Your task to perform on an android device: turn off location Image 0: 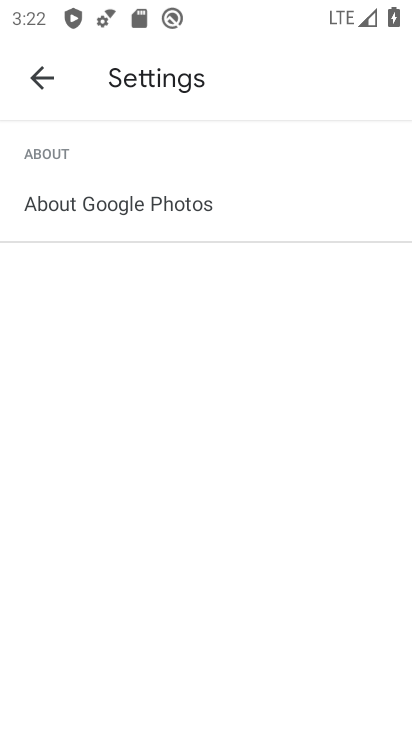
Step 0: press home button
Your task to perform on an android device: turn off location Image 1: 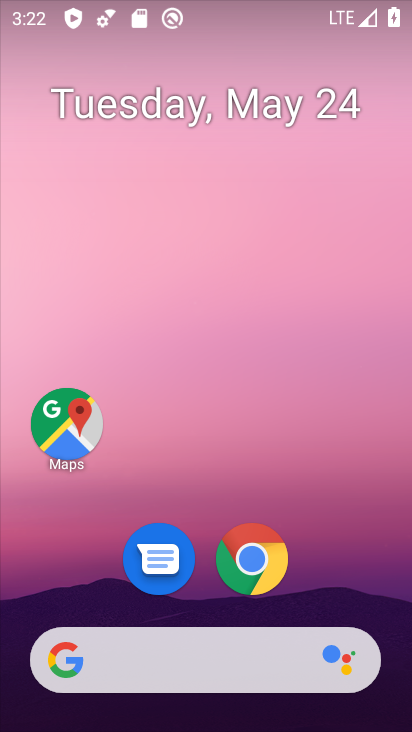
Step 1: drag from (340, 571) to (310, 139)
Your task to perform on an android device: turn off location Image 2: 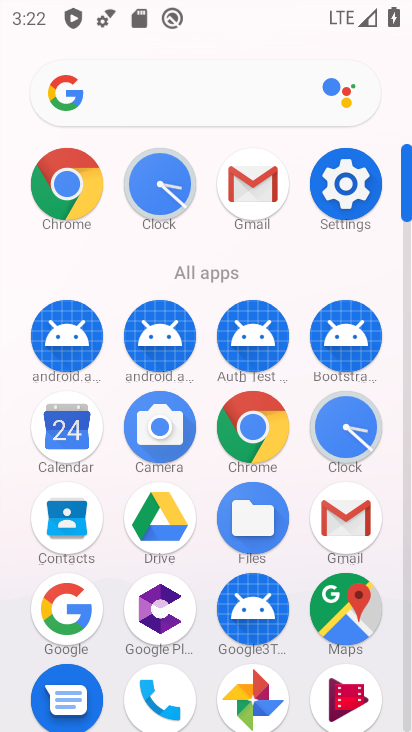
Step 2: click (348, 180)
Your task to perform on an android device: turn off location Image 3: 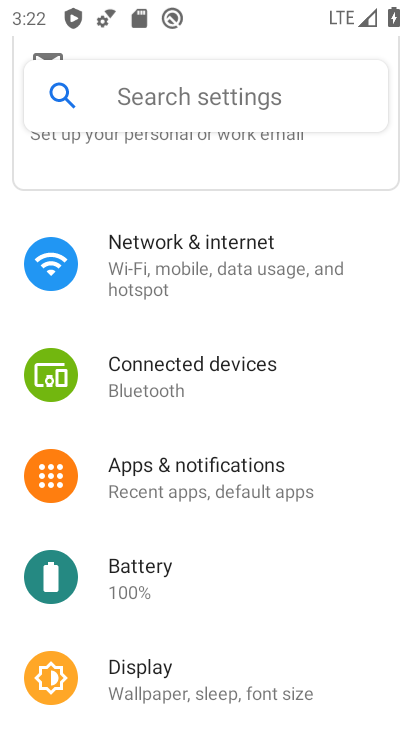
Step 3: drag from (168, 440) to (204, 322)
Your task to perform on an android device: turn off location Image 4: 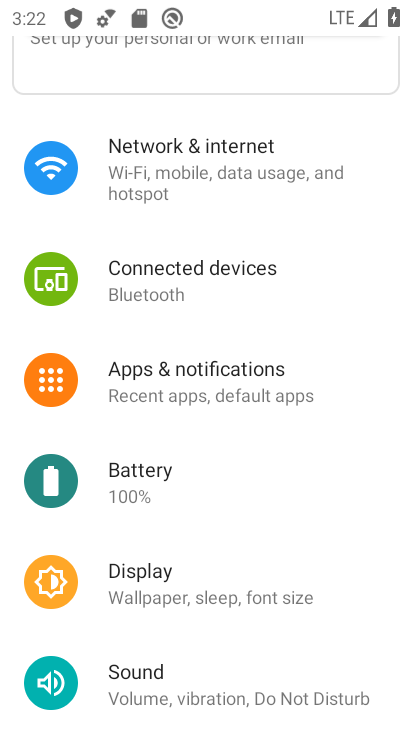
Step 4: drag from (197, 481) to (253, 356)
Your task to perform on an android device: turn off location Image 5: 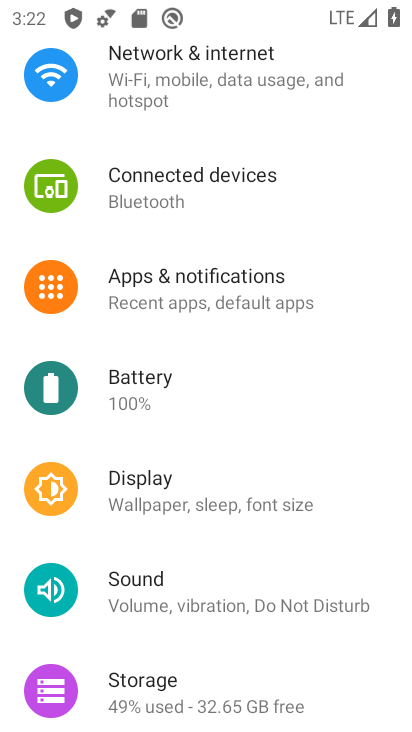
Step 5: drag from (189, 563) to (257, 437)
Your task to perform on an android device: turn off location Image 6: 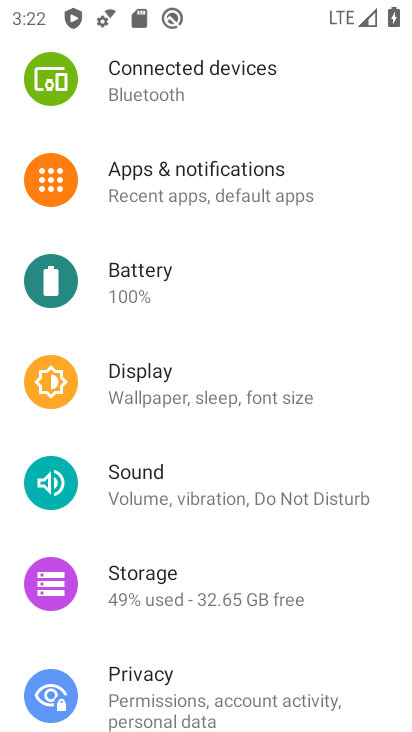
Step 6: drag from (209, 534) to (268, 428)
Your task to perform on an android device: turn off location Image 7: 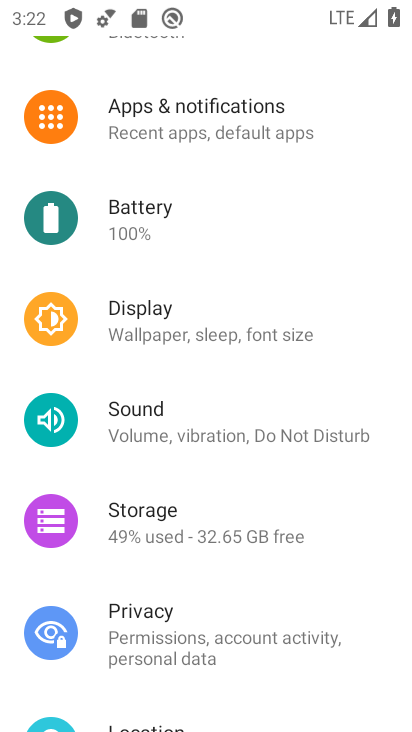
Step 7: drag from (213, 575) to (277, 458)
Your task to perform on an android device: turn off location Image 8: 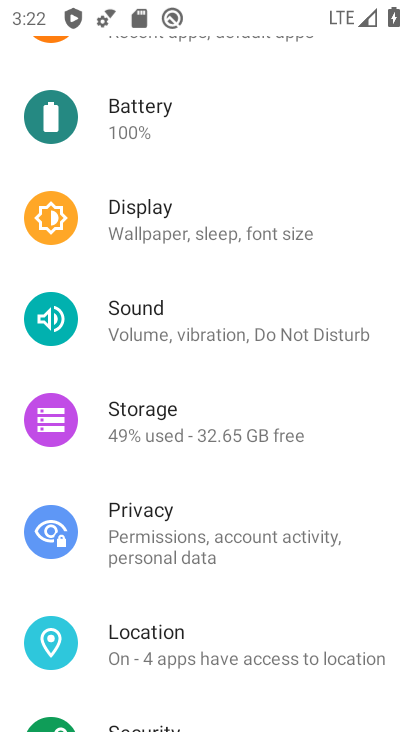
Step 8: drag from (209, 613) to (277, 509)
Your task to perform on an android device: turn off location Image 9: 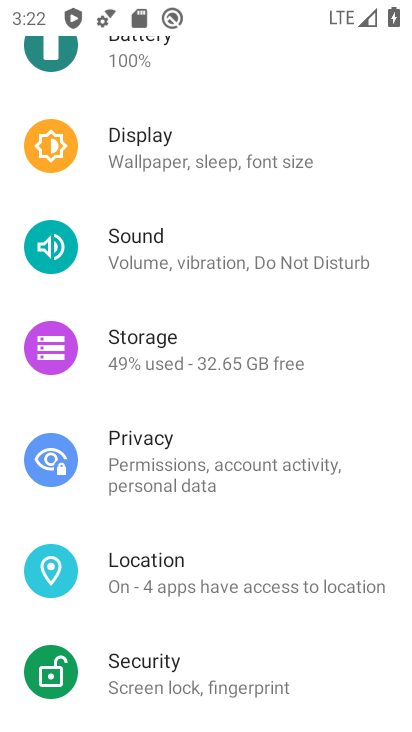
Step 9: click (246, 594)
Your task to perform on an android device: turn off location Image 10: 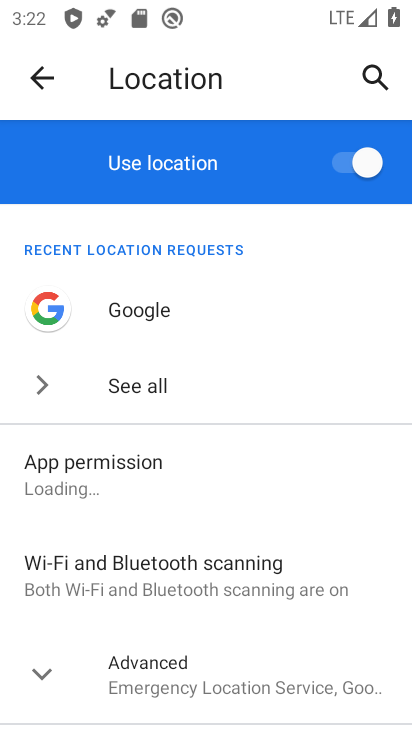
Step 10: click (333, 158)
Your task to perform on an android device: turn off location Image 11: 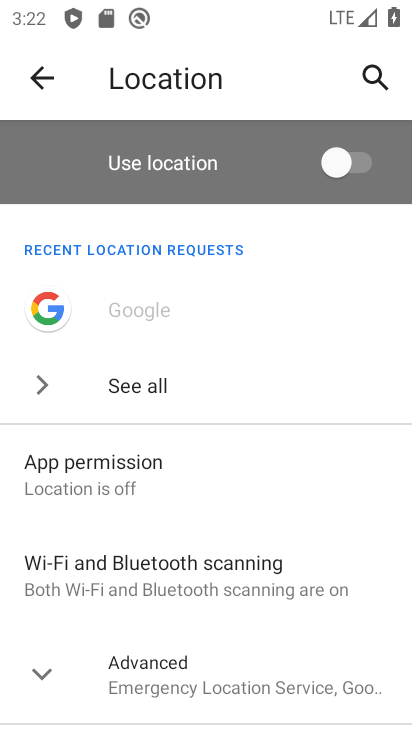
Step 11: task complete